Your task to perform on an android device: change alarm snooze length Image 0: 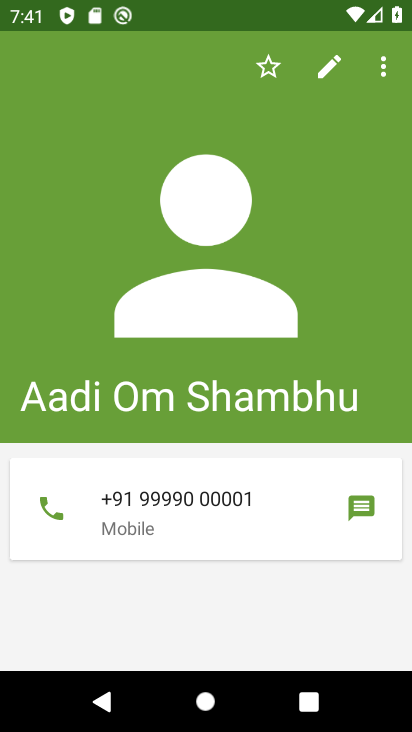
Step 0: press home button
Your task to perform on an android device: change alarm snooze length Image 1: 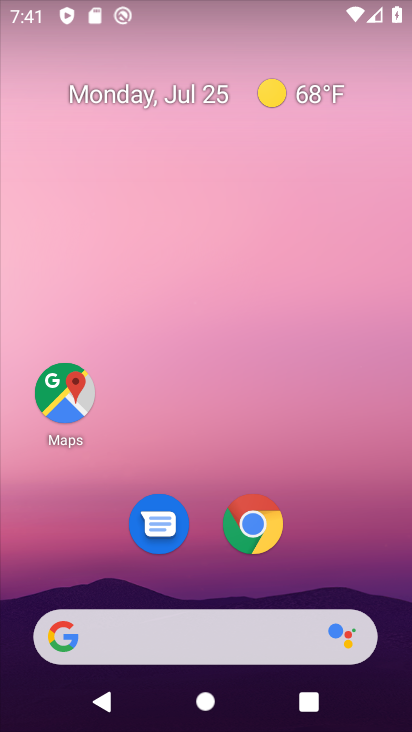
Step 1: drag from (309, 548) to (342, 24)
Your task to perform on an android device: change alarm snooze length Image 2: 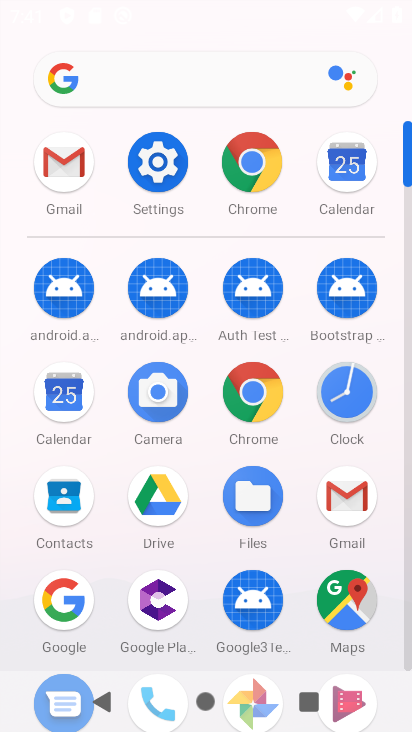
Step 2: click (350, 398)
Your task to perform on an android device: change alarm snooze length Image 3: 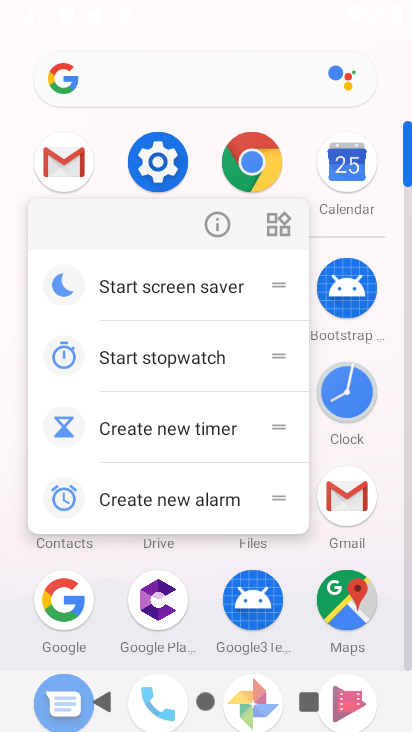
Step 3: click (350, 398)
Your task to perform on an android device: change alarm snooze length Image 4: 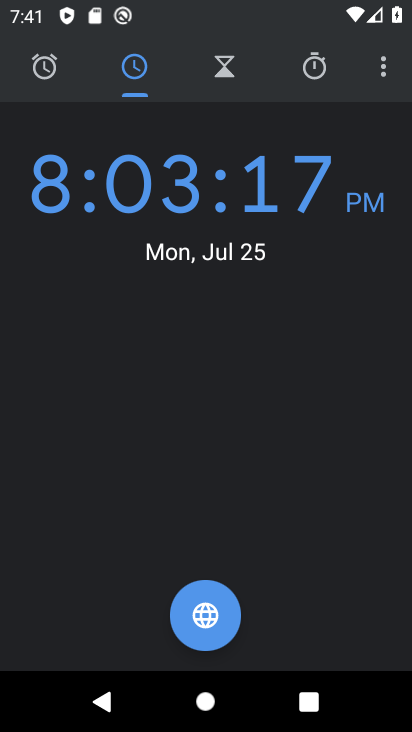
Step 4: click (387, 79)
Your task to perform on an android device: change alarm snooze length Image 5: 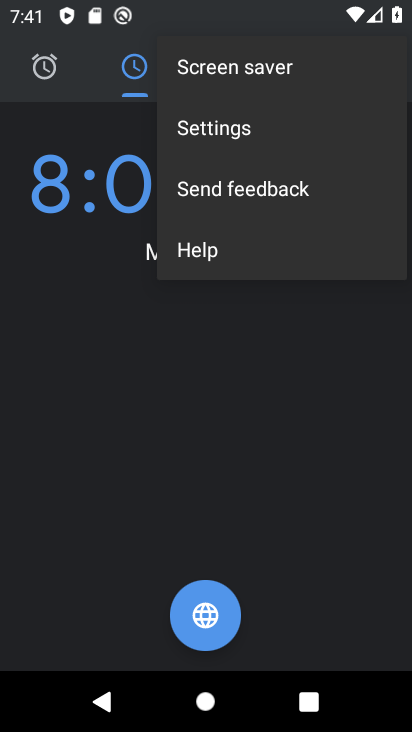
Step 5: click (240, 131)
Your task to perform on an android device: change alarm snooze length Image 6: 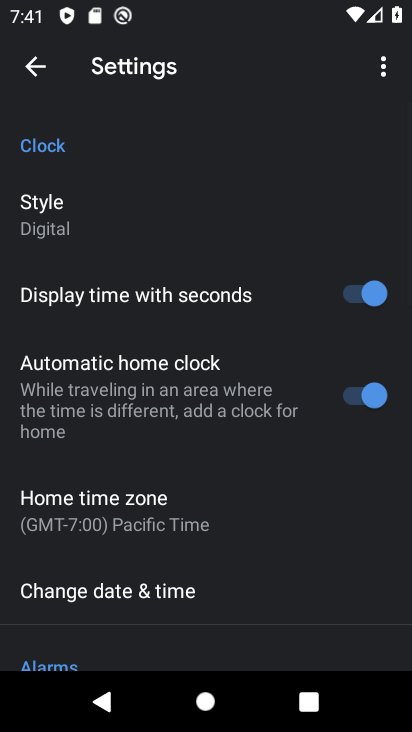
Step 6: drag from (285, 509) to (280, 259)
Your task to perform on an android device: change alarm snooze length Image 7: 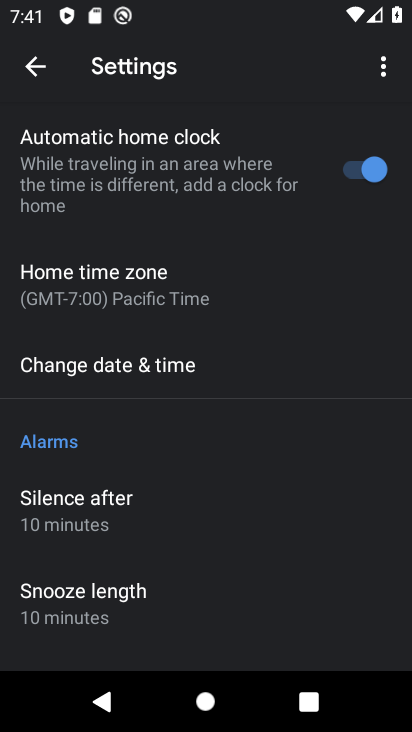
Step 7: click (127, 584)
Your task to perform on an android device: change alarm snooze length Image 8: 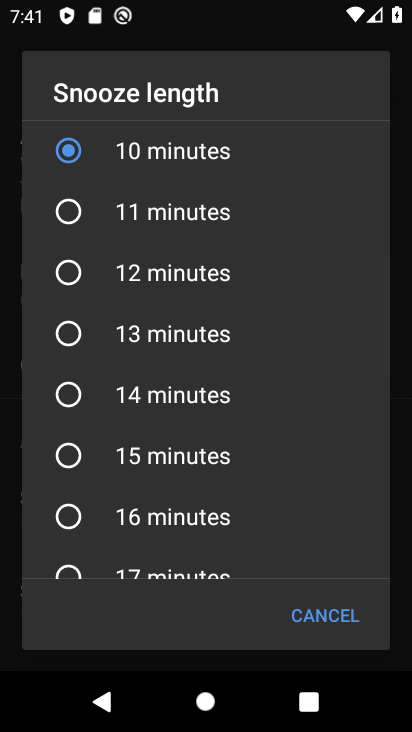
Step 8: click (71, 275)
Your task to perform on an android device: change alarm snooze length Image 9: 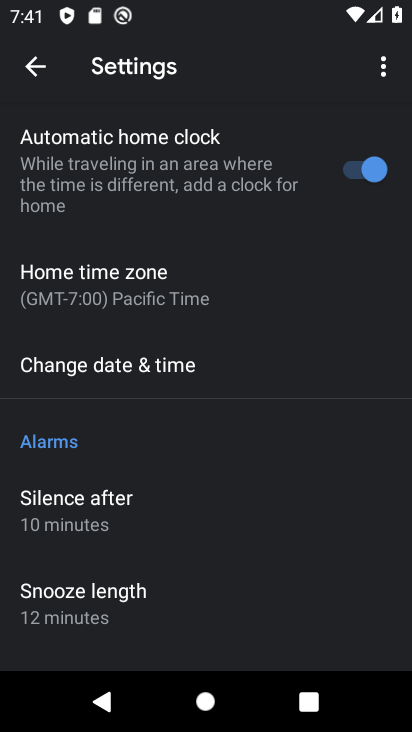
Step 9: task complete